Your task to perform on an android device: Open Google Chrome and click the shortcut for Amazon.com Image 0: 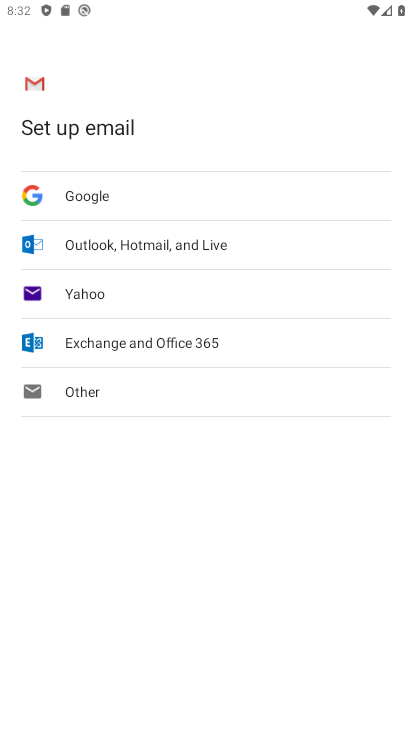
Step 0: press home button
Your task to perform on an android device: Open Google Chrome and click the shortcut for Amazon.com Image 1: 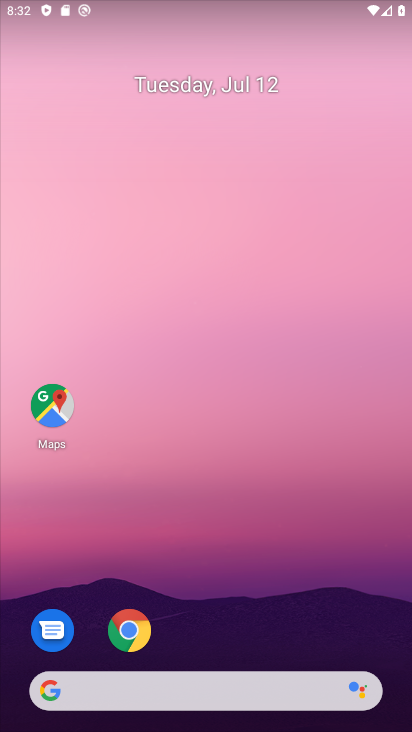
Step 1: click (141, 632)
Your task to perform on an android device: Open Google Chrome and click the shortcut for Amazon.com Image 2: 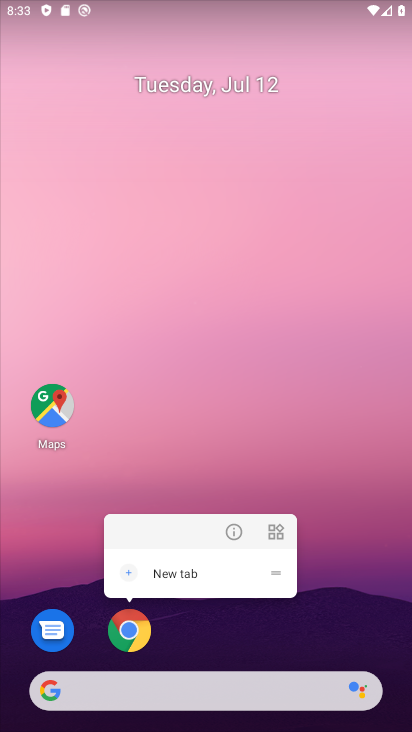
Step 2: click (125, 636)
Your task to perform on an android device: Open Google Chrome and click the shortcut for Amazon.com Image 3: 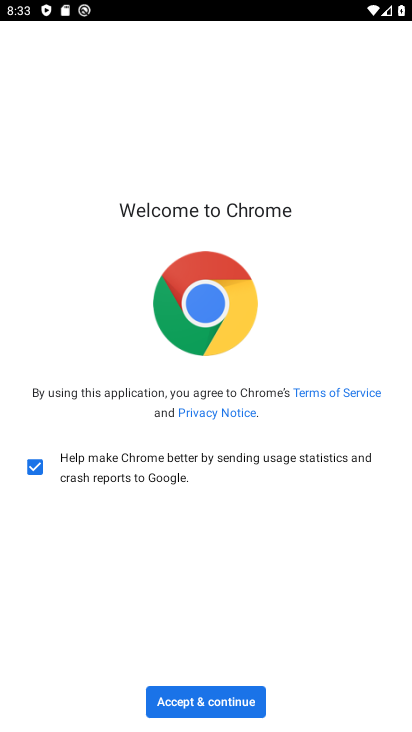
Step 3: click (206, 703)
Your task to perform on an android device: Open Google Chrome and click the shortcut for Amazon.com Image 4: 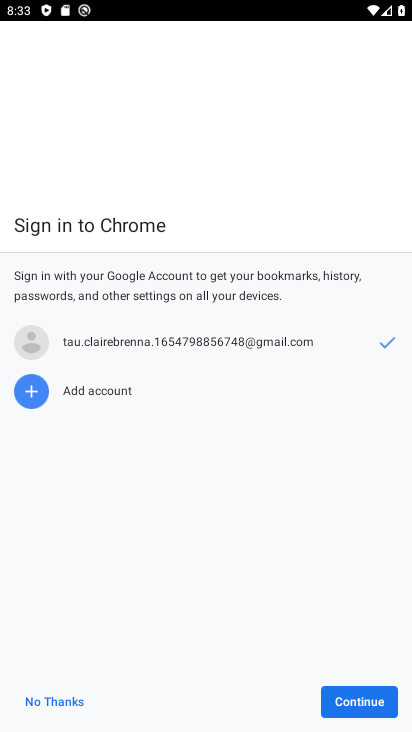
Step 4: click (358, 709)
Your task to perform on an android device: Open Google Chrome and click the shortcut for Amazon.com Image 5: 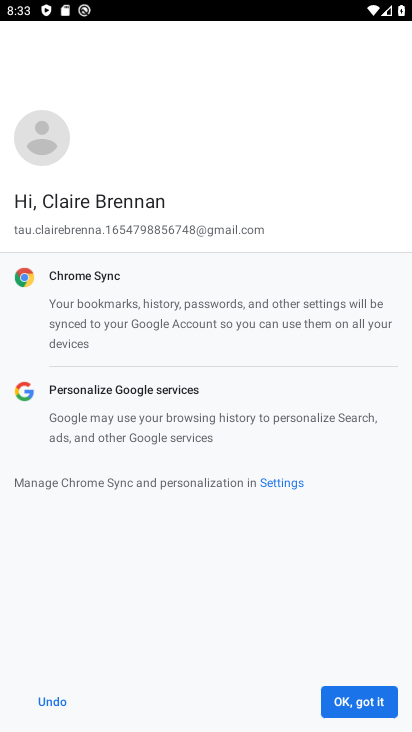
Step 5: click (370, 697)
Your task to perform on an android device: Open Google Chrome and click the shortcut for Amazon.com Image 6: 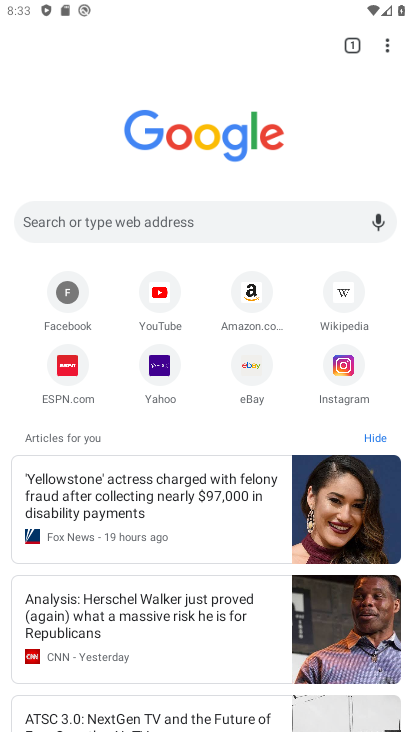
Step 6: click (247, 289)
Your task to perform on an android device: Open Google Chrome and click the shortcut for Amazon.com Image 7: 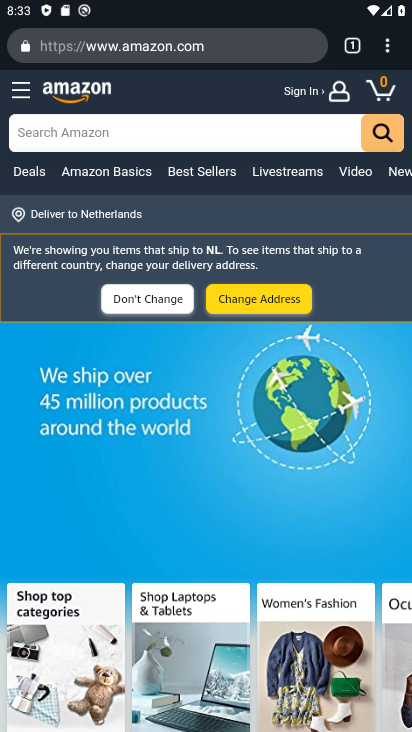
Step 7: task complete